Your task to perform on an android device: Open the Play Movies app and select the watchlist tab. Image 0: 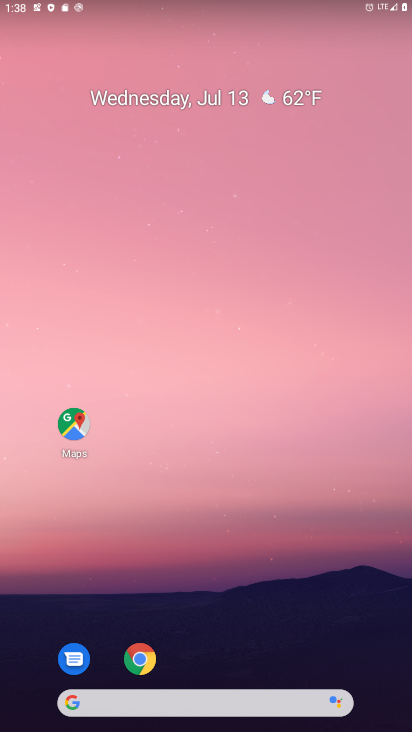
Step 0: drag from (258, 693) to (274, 1)
Your task to perform on an android device: Open the Play Movies app and select the watchlist tab. Image 1: 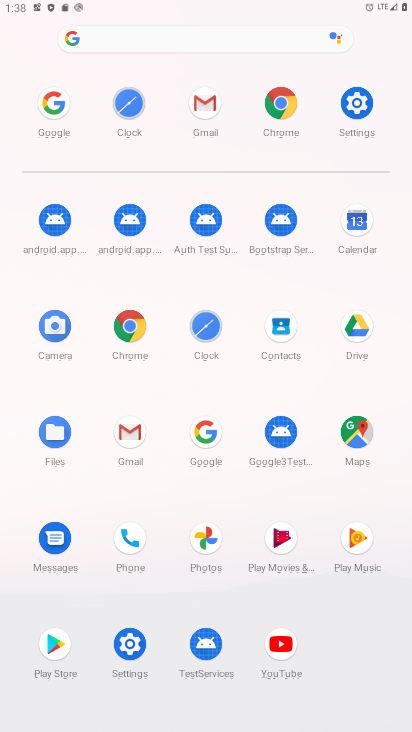
Step 1: click (276, 540)
Your task to perform on an android device: Open the Play Movies app and select the watchlist tab. Image 2: 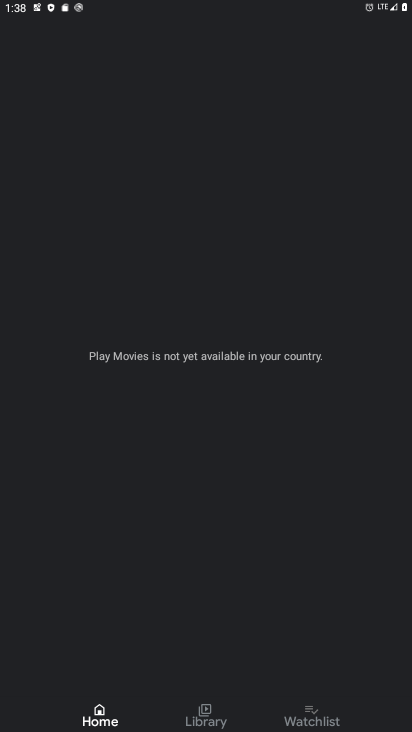
Step 2: click (313, 718)
Your task to perform on an android device: Open the Play Movies app and select the watchlist tab. Image 3: 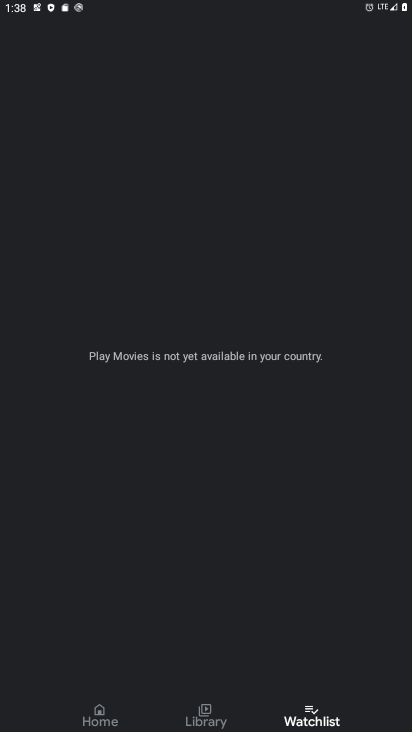
Step 3: task complete